Your task to perform on an android device: Open battery settings Image 0: 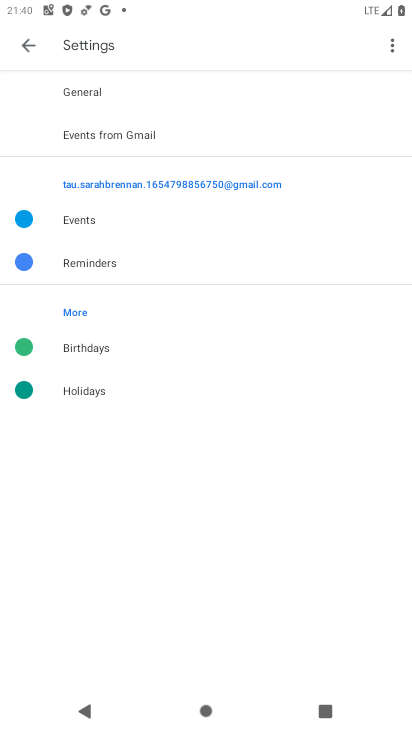
Step 0: press home button
Your task to perform on an android device: Open battery settings Image 1: 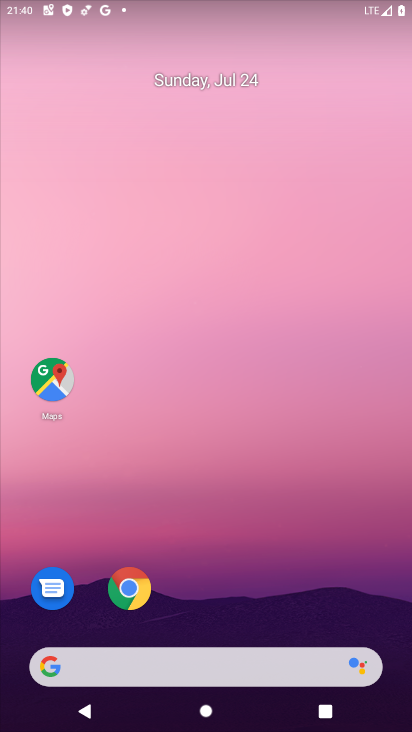
Step 1: drag from (205, 658) to (260, 293)
Your task to perform on an android device: Open battery settings Image 2: 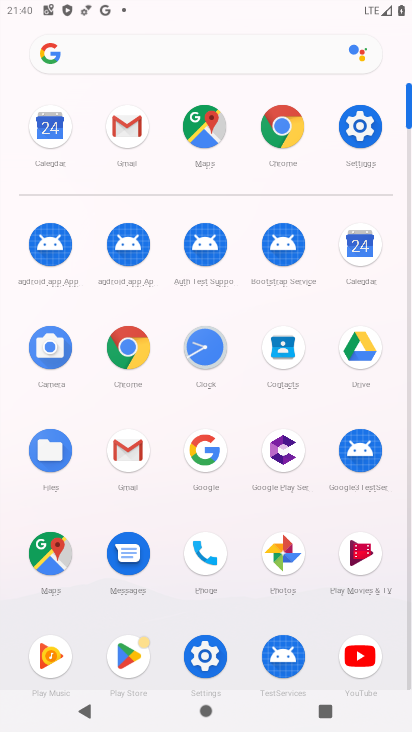
Step 2: click (356, 137)
Your task to perform on an android device: Open battery settings Image 3: 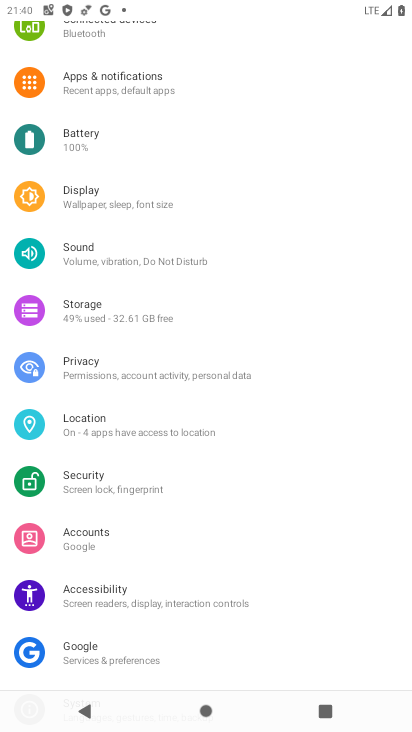
Step 3: click (103, 132)
Your task to perform on an android device: Open battery settings Image 4: 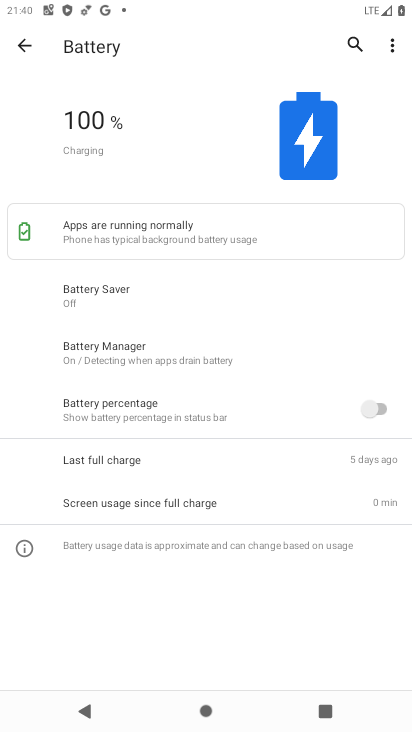
Step 4: task complete